Your task to perform on an android device: empty trash in google photos Image 0: 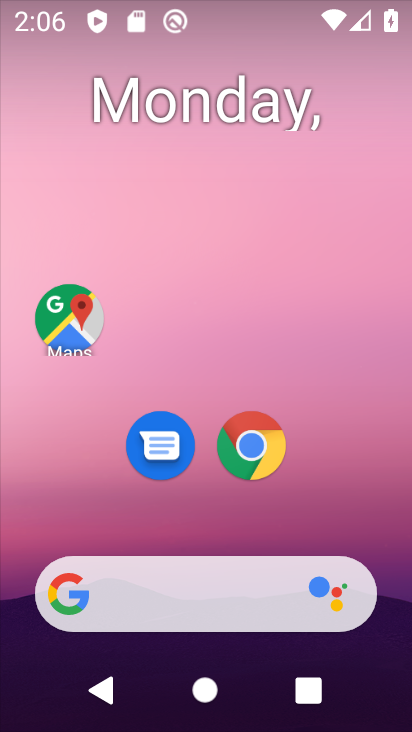
Step 0: drag from (331, 385) to (268, 29)
Your task to perform on an android device: empty trash in google photos Image 1: 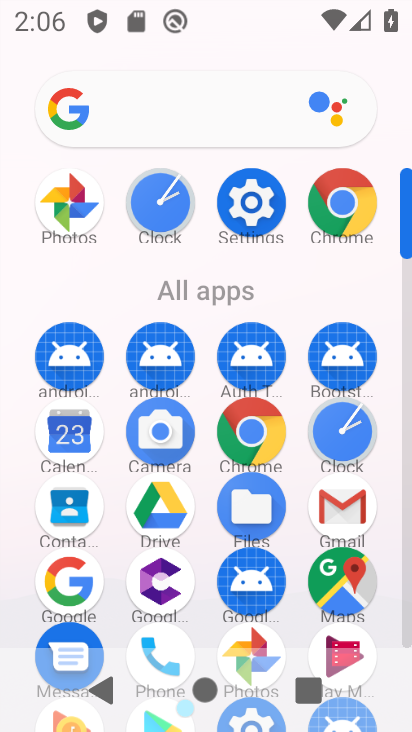
Step 1: drag from (2, 538) to (40, 208)
Your task to perform on an android device: empty trash in google photos Image 2: 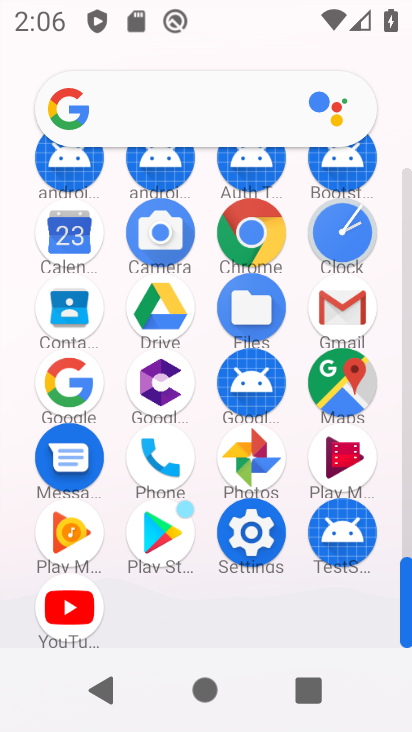
Step 2: click (254, 454)
Your task to perform on an android device: empty trash in google photos Image 3: 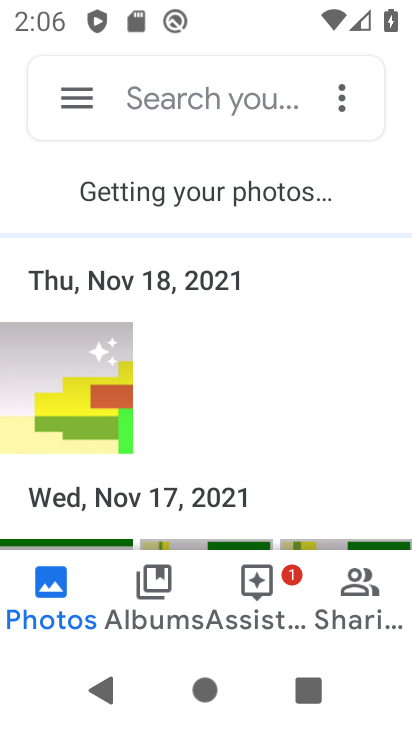
Step 3: click (169, 584)
Your task to perform on an android device: empty trash in google photos Image 4: 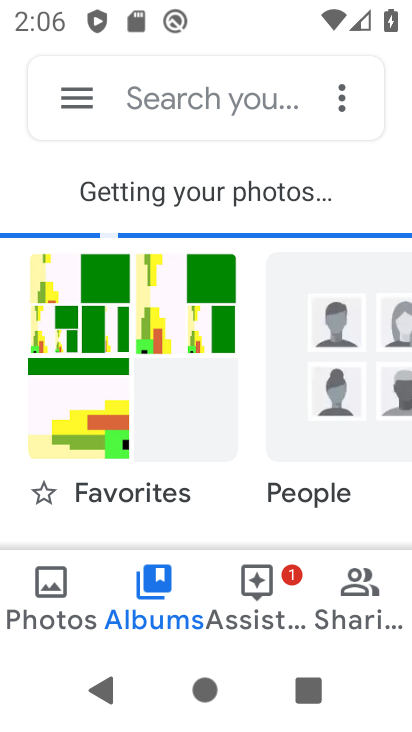
Step 4: click (245, 587)
Your task to perform on an android device: empty trash in google photos Image 5: 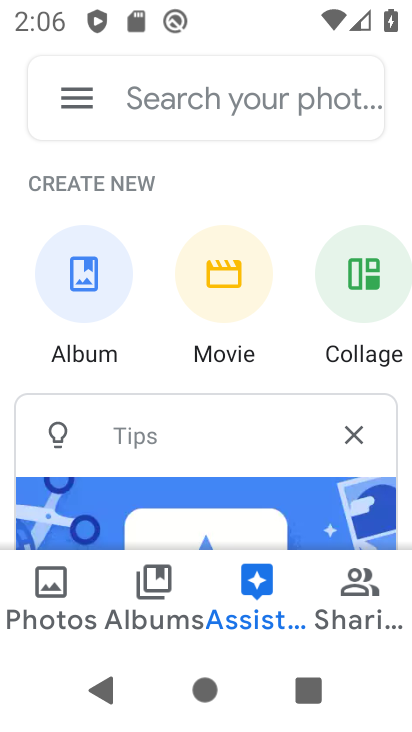
Step 5: click (70, 611)
Your task to perform on an android device: empty trash in google photos Image 6: 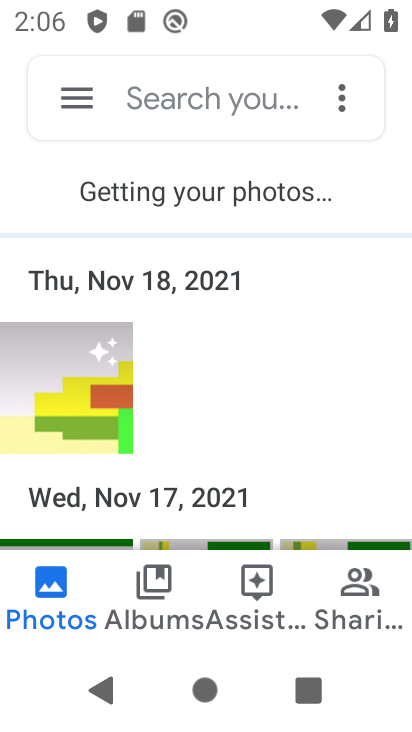
Step 6: click (75, 87)
Your task to perform on an android device: empty trash in google photos Image 7: 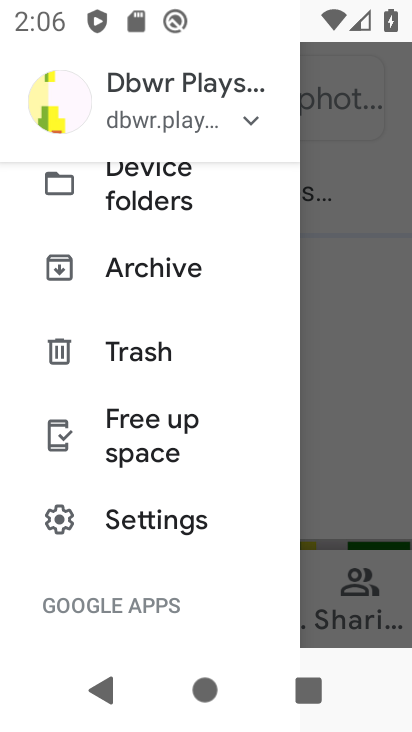
Step 7: click (132, 351)
Your task to perform on an android device: empty trash in google photos Image 8: 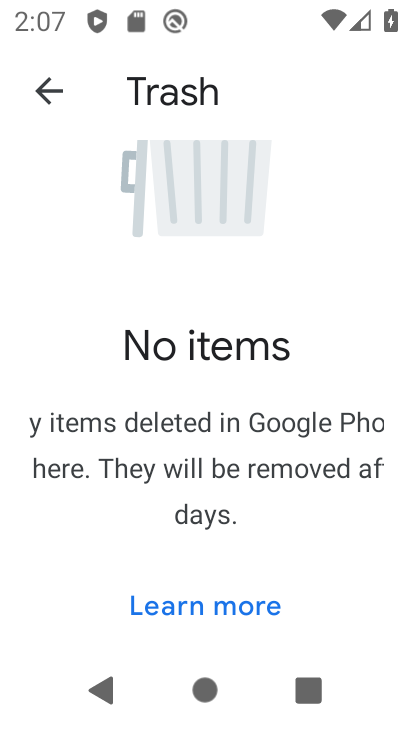
Step 8: task complete